Your task to perform on an android device: Show me productivity apps on the Play Store Image 0: 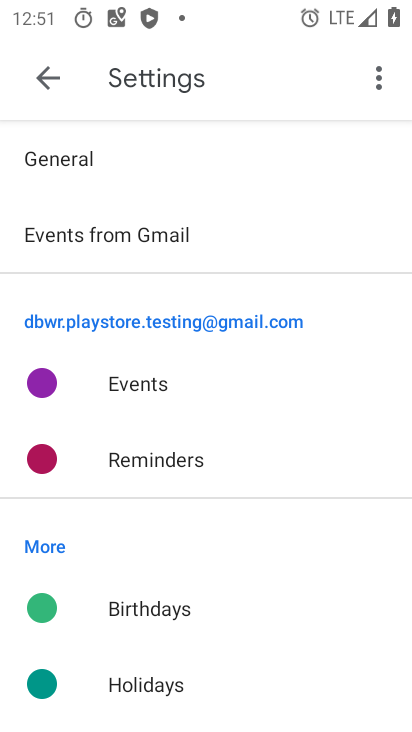
Step 0: press home button
Your task to perform on an android device: Show me productivity apps on the Play Store Image 1: 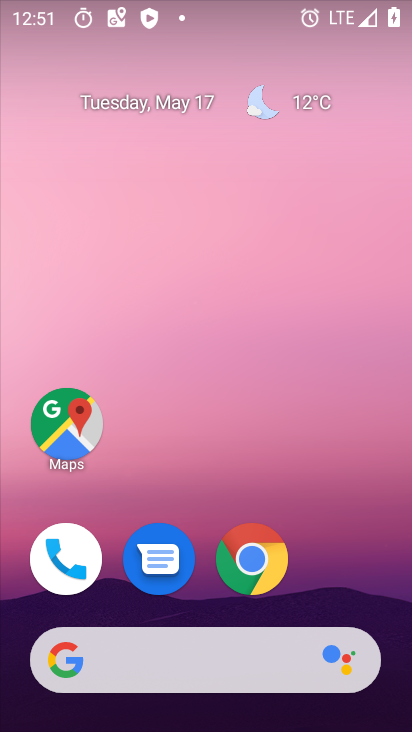
Step 1: drag from (352, 538) to (292, 108)
Your task to perform on an android device: Show me productivity apps on the Play Store Image 2: 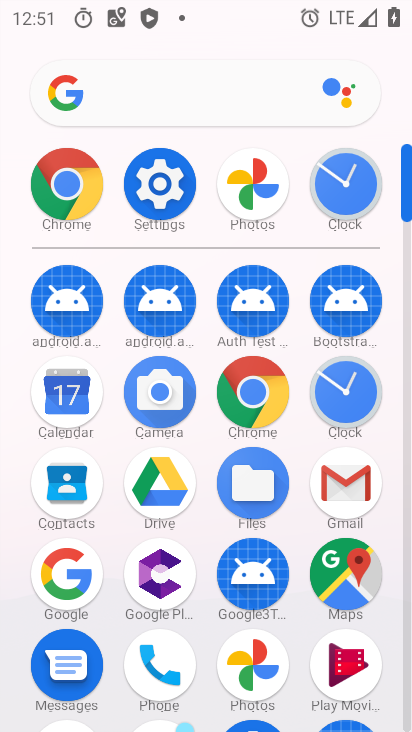
Step 2: drag from (208, 614) to (266, 336)
Your task to perform on an android device: Show me productivity apps on the Play Store Image 3: 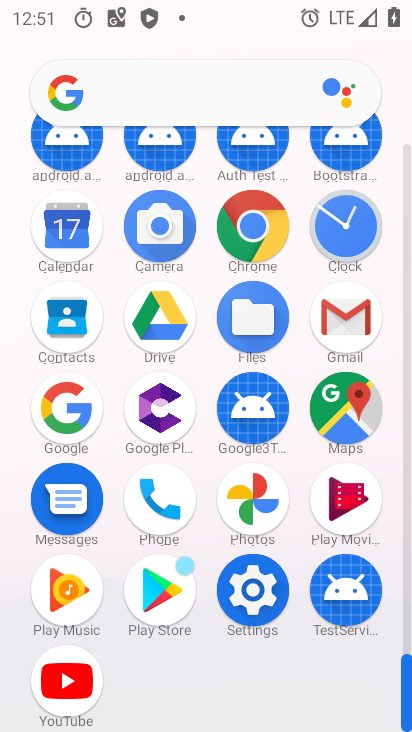
Step 3: click (158, 604)
Your task to perform on an android device: Show me productivity apps on the Play Store Image 4: 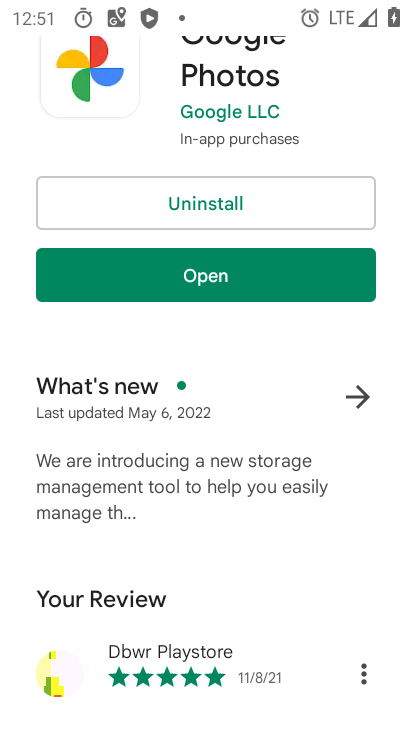
Step 4: drag from (268, 399) to (349, 727)
Your task to perform on an android device: Show me productivity apps on the Play Store Image 5: 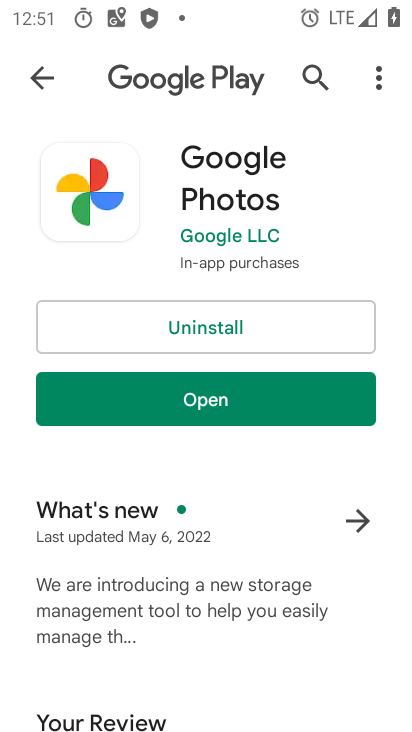
Step 5: click (37, 69)
Your task to perform on an android device: Show me productivity apps on the Play Store Image 6: 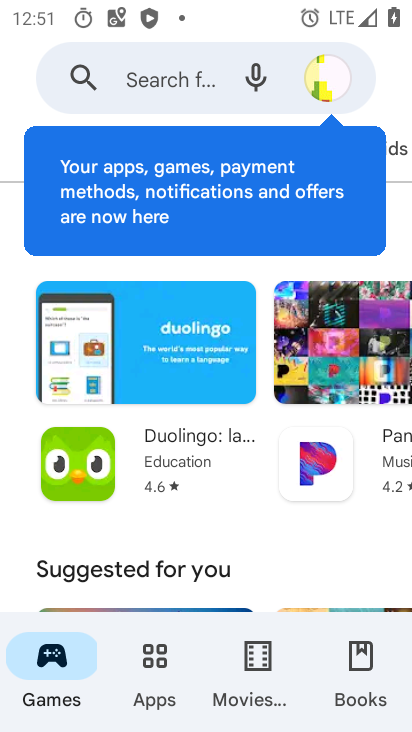
Step 6: click (168, 648)
Your task to perform on an android device: Show me productivity apps on the Play Store Image 7: 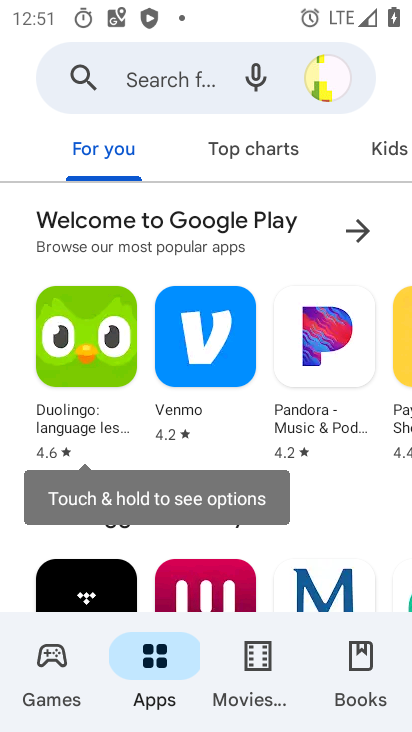
Step 7: task complete